Your task to perform on an android device: Go to privacy settings Image 0: 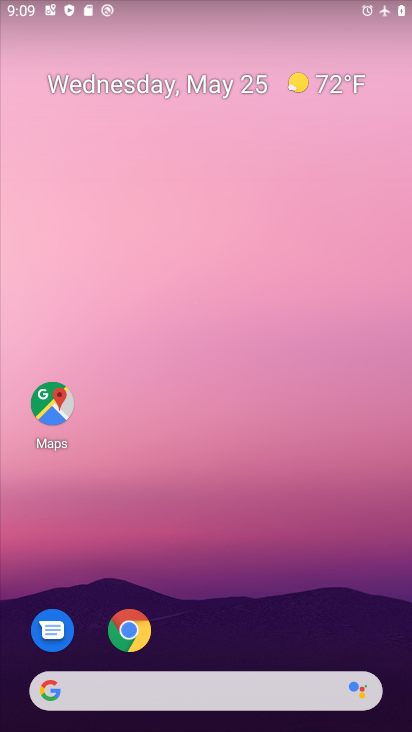
Step 0: drag from (187, 637) to (185, 113)
Your task to perform on an android device: Go to privacy settings Image 1: 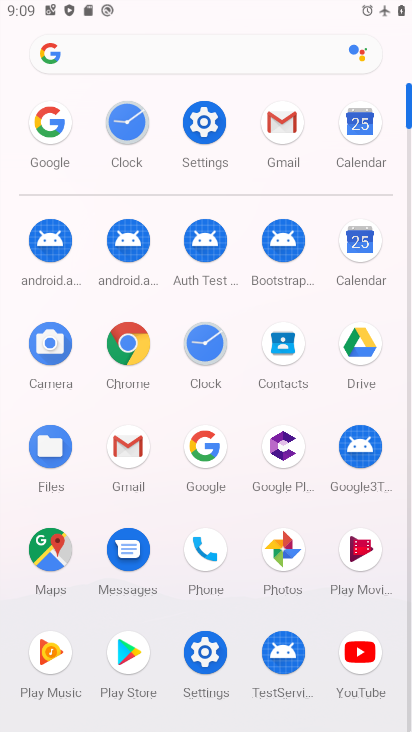
Step 1: click (194, 123)
Your task to perform on an android device: Go to privacy settings Image 2: 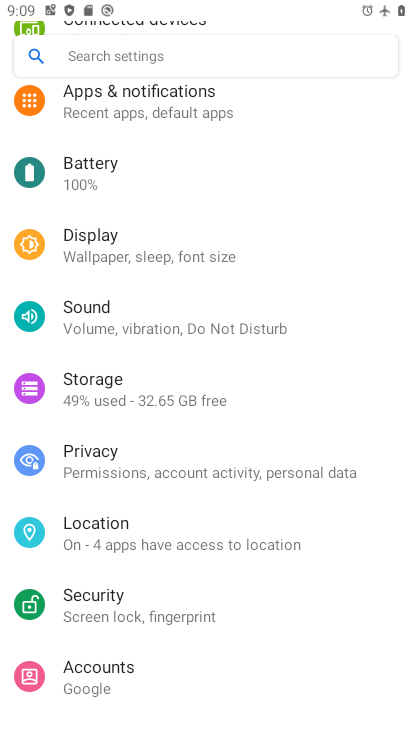
Step 2: click (157, 472)
Your task to perform on an android device: Go to privacy settings Image 3: 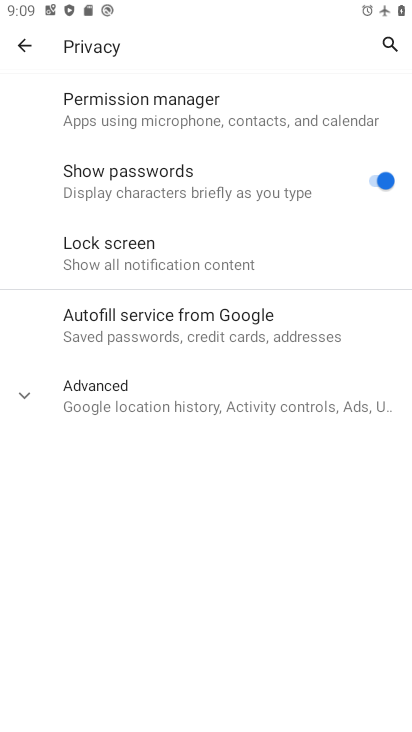
Step 3: task complete